Your task to perform on an android device: Search for Mexican restaurants on Maps Image 0: 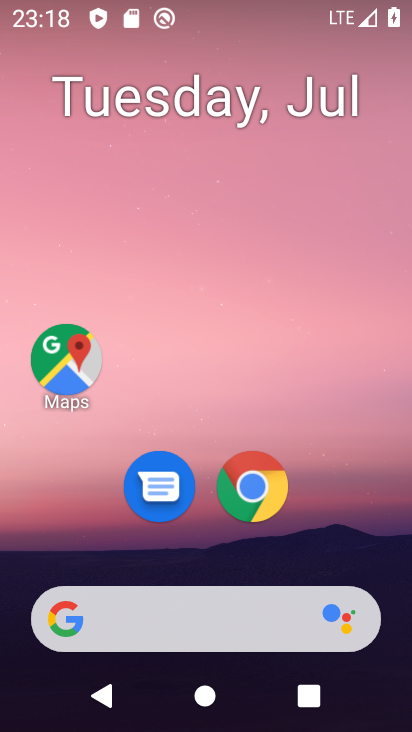
Step 0: press home button
Your task to perform on an android device: Search for Mexican restaurants on Maps Image 1: 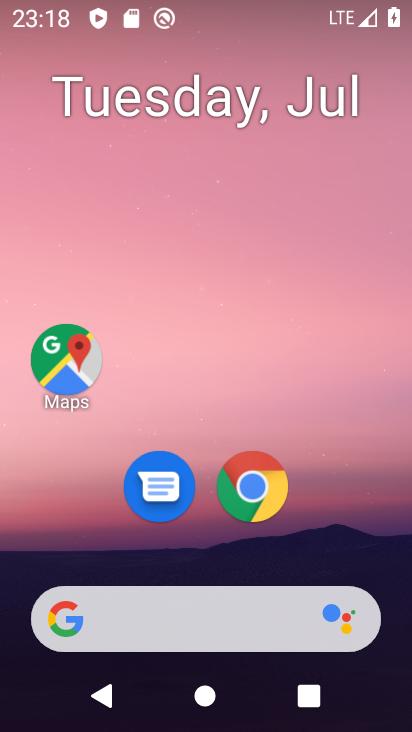
Step 1: drag from (352, 486) to (281, 125)
Your task to perform on an android device: Search for Mexican restaurants on Maps Image 2: 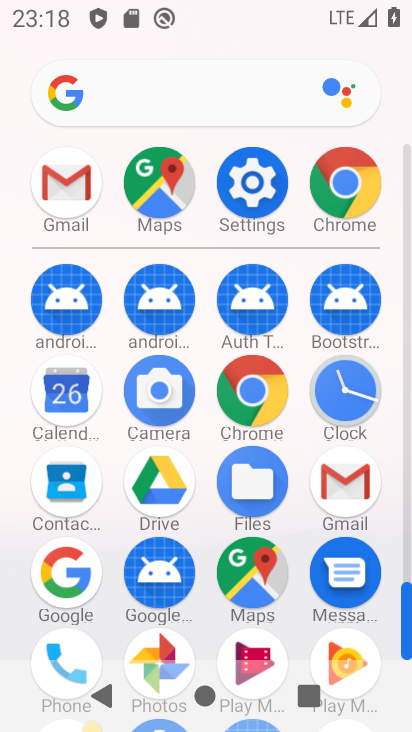
Step 2: click (264, 571)
Your task to perform on an android device: Search for Mexican restaurants on Maps Image 3: 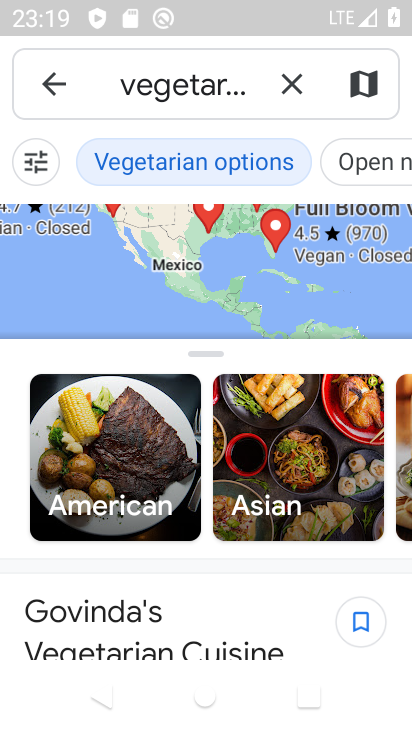
Step 3: press back button
Your task to perform on an android device: Search for Mexican restaurants on Maps Image 4: 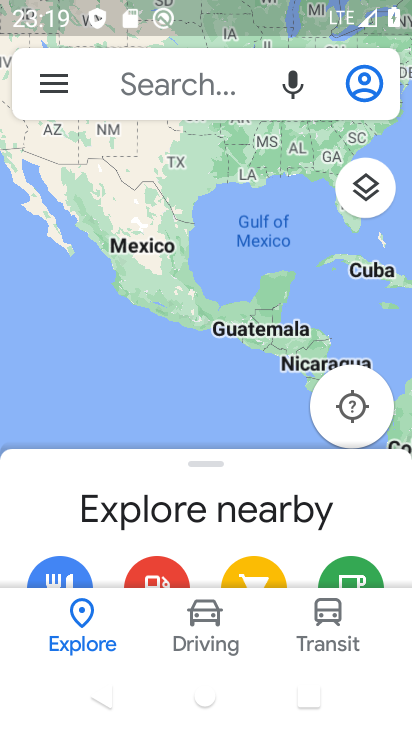
Step 4: click (140, 84)
Your task to perform on an android device: Search for Mexican restaurants on Maps Image 5: 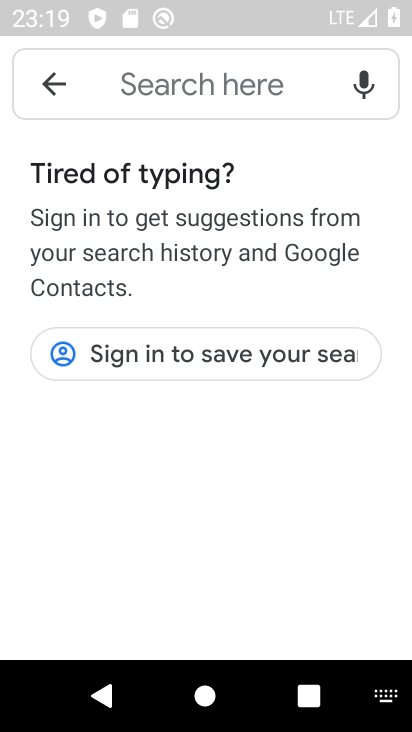
Step 5: type "mexcian rfestaurants"
Your task to perform on an android device: Search for Mexican restaurants on Maps Image 6: 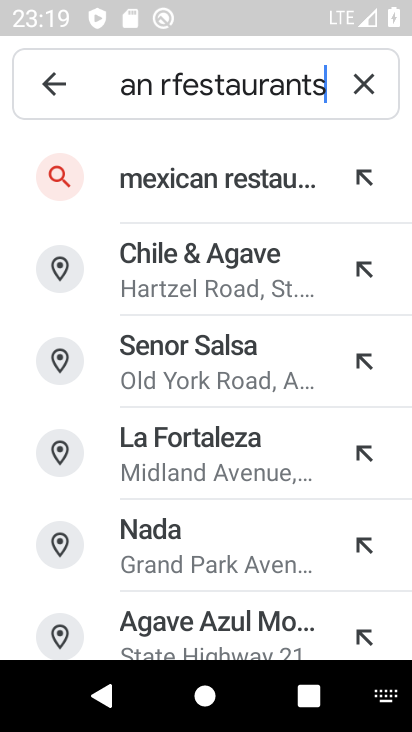
Step 6: click (197, 192)
Your task to perform on an android device: Search for Mexican restaurants on Maps Image 7: 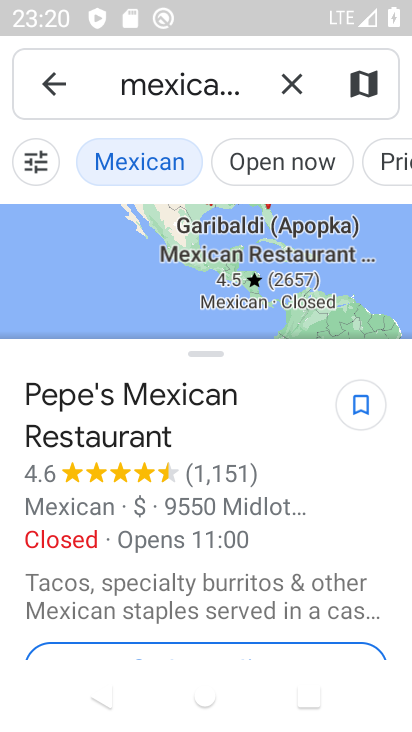
Step 7: task complete